Your task to perform on an android device: Add "logitech g903" to the cart on bestbuy, then select checkout. Image 0: 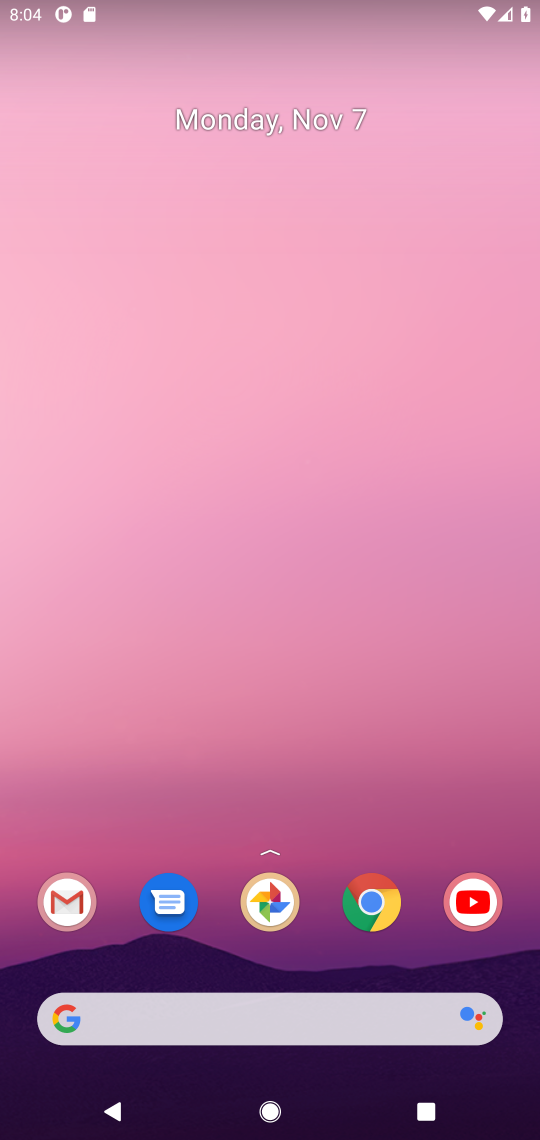
Step 0: click (372, 899)
Your task to perform on an android device: Add "logitech g903" to the cart on bestbuy, then select checkout. Image 1: 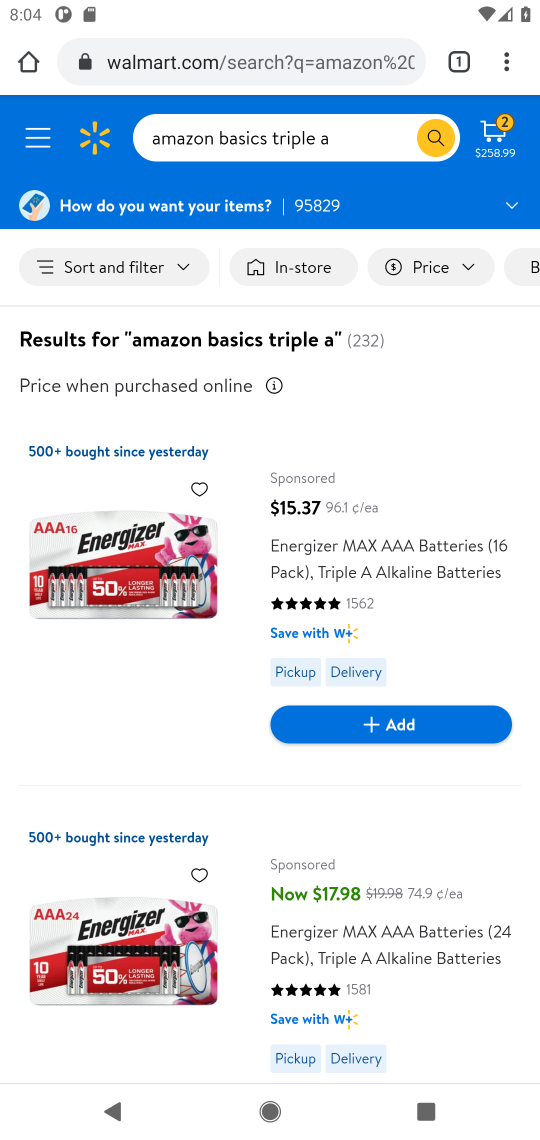
Step 1: click (263, 63)
Your task to perform on an android device: Add "logitech g903" to the cart on bestbuy, then select checkout. Image 2: 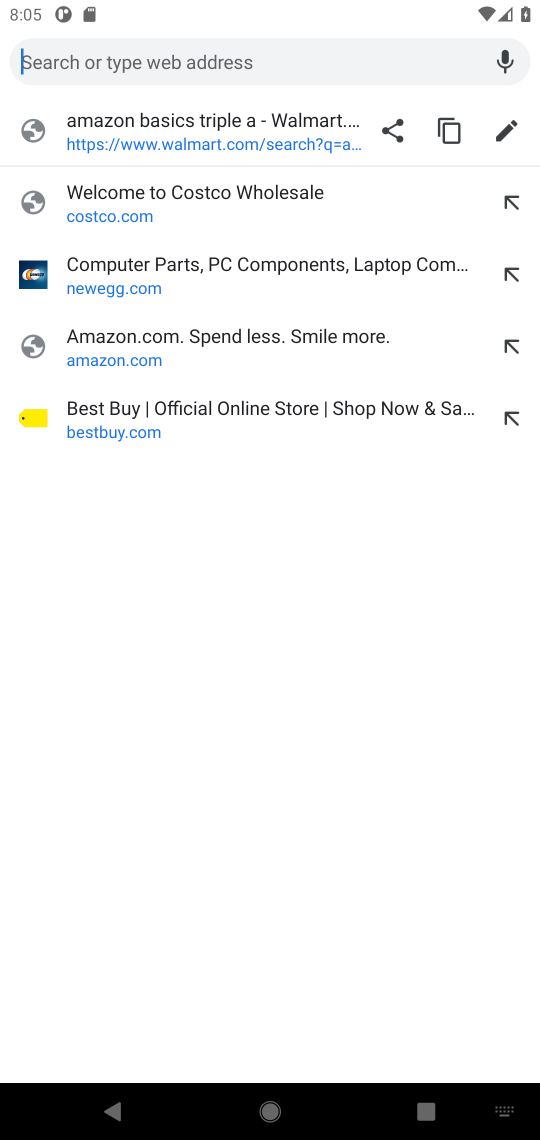
Step 2: click (102, 420)
Your task to perform on an android device: Add "logitech g903" to the cart on bestbuy, then select checkout. Image 3: 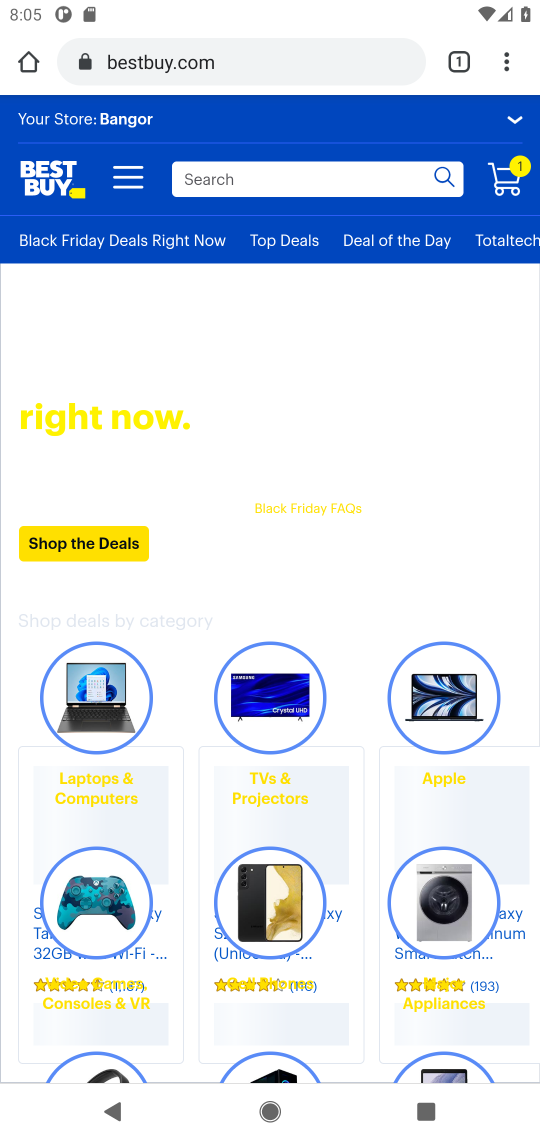
Step 3: click (270, 176)
Your task to perform on an android device: Add "logitech g903" to the cart on bestbuy, then select checkout. Image 4: 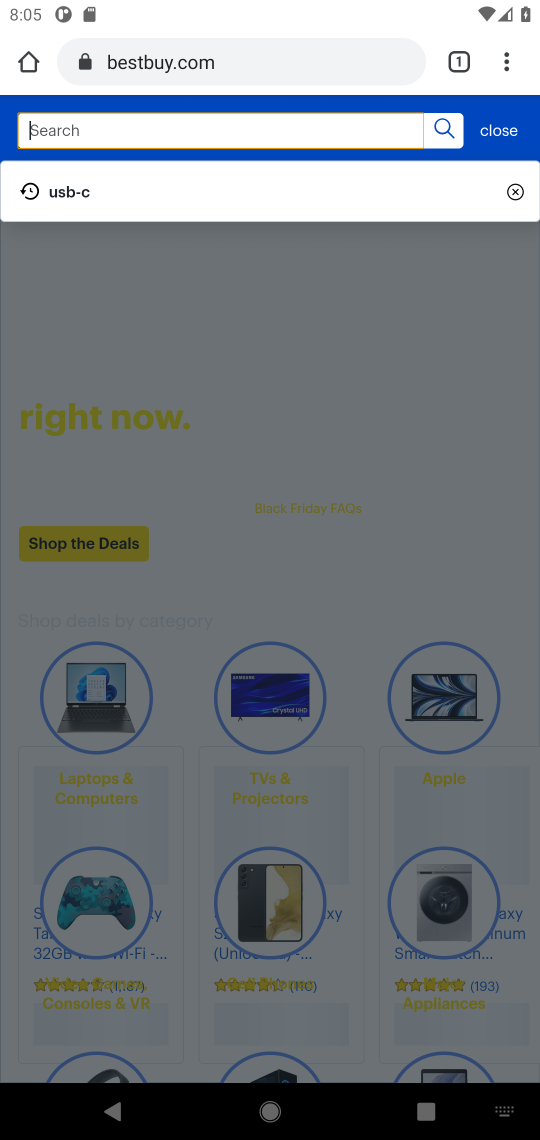
Step 4: type "logitech g903"
Your task to perform on an android device: Add "logitech g903" to the cart on bestbuy, then select checkout. Image 5: 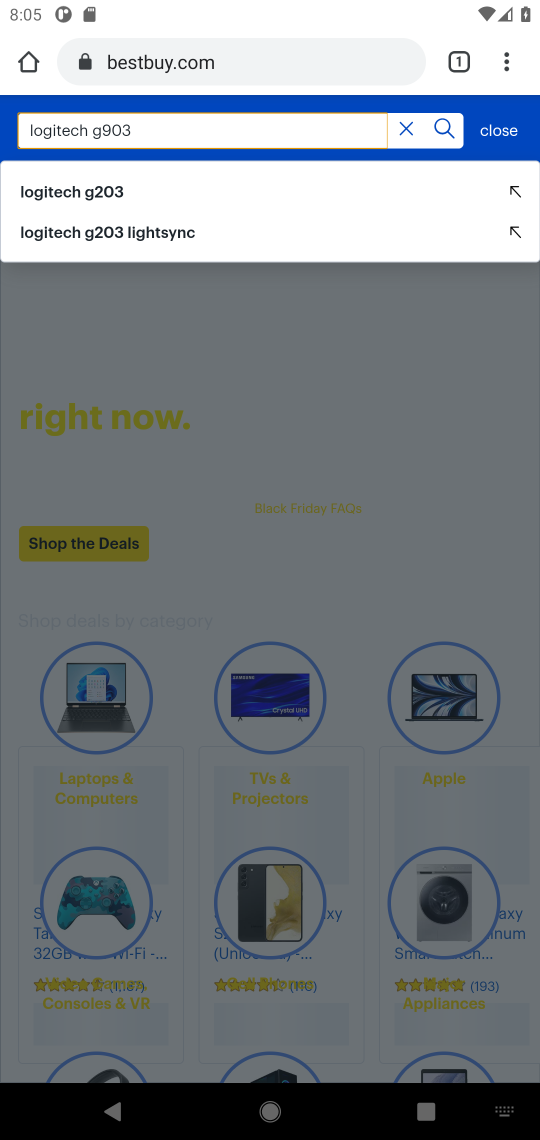
Step 5: click (439, 125)
Your task to perform on an android device: Add "logitech g903" to the cart on bestbuy, then select checkout. Image 6: 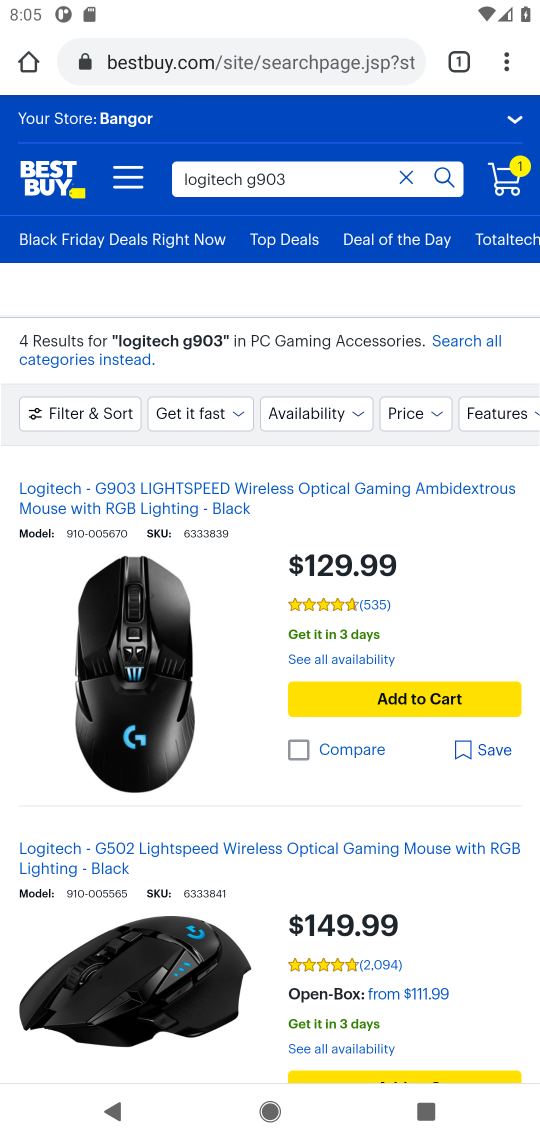
Step 6: click (362, 648)
Your task to perform on an android device: Add "logitech g903" to the cart on bestbuy, then select checkout. Image 7: 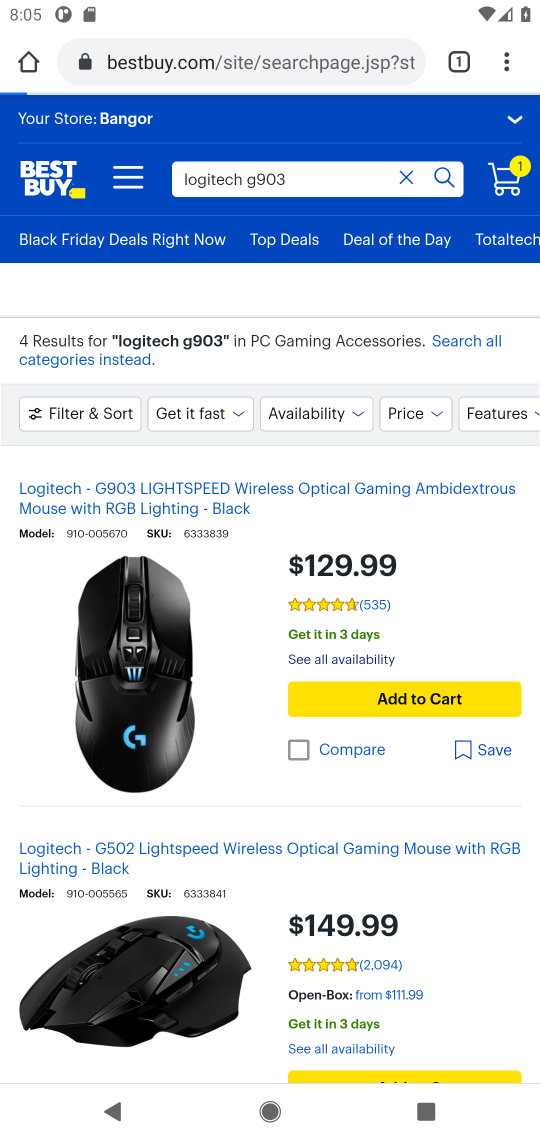
Step 7: click (357, 697)
Your task to perform on an android device: Add "logitech g903" to the cart on bestbuy, then select checkout. Image 8: 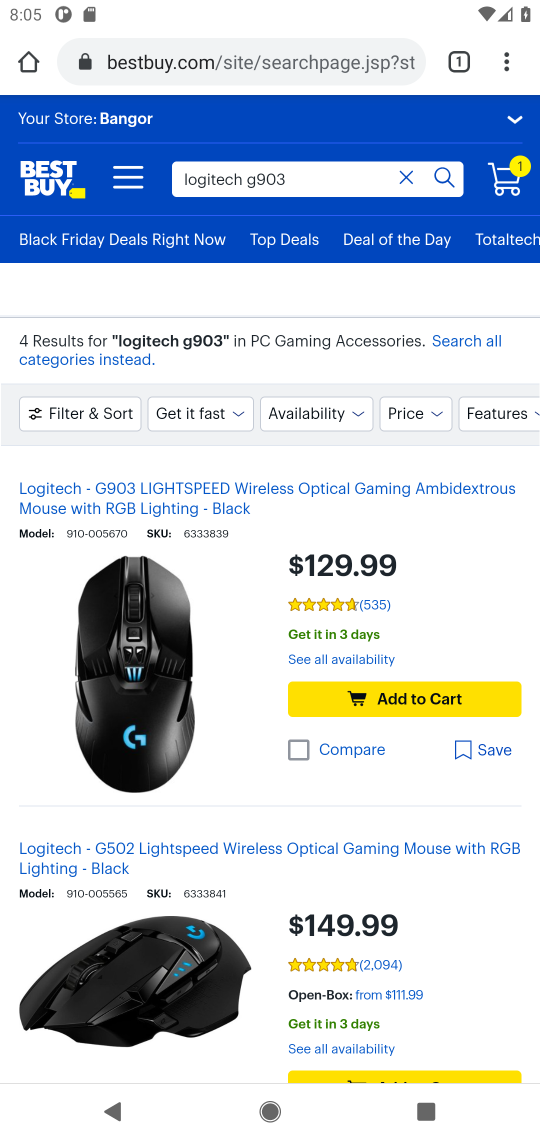
Step 8: click (357, 697)
Your task to perform on an android device: Add "logitech g903" to the cart on bestbuy, then select checkout. Image 9: 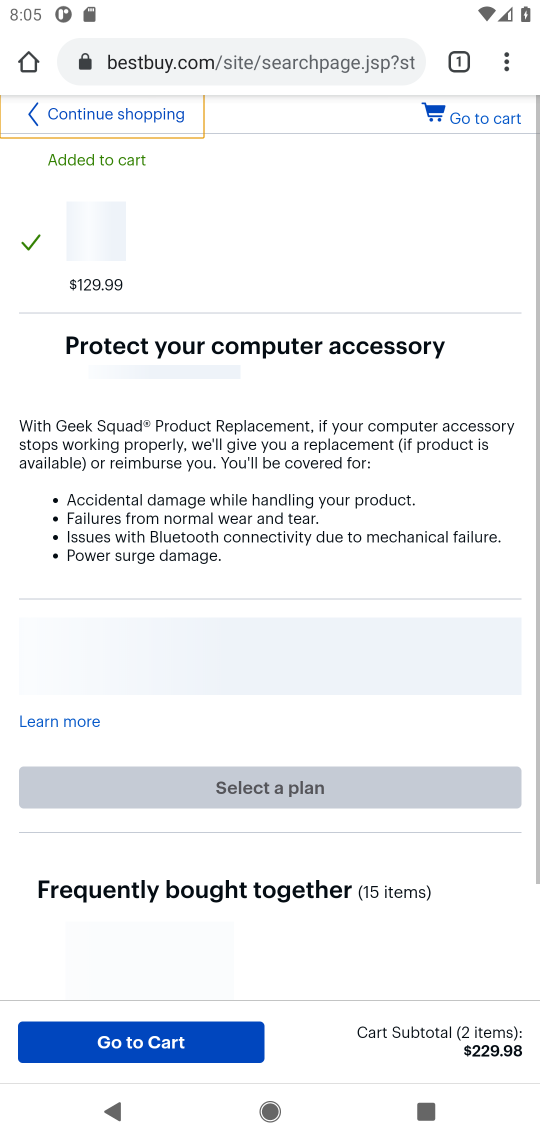
Step 9: click (484, 120)
Your task to perform on an android device: Add "logitech g903" to the cart on bestbuy, then select checkout. Image 10: 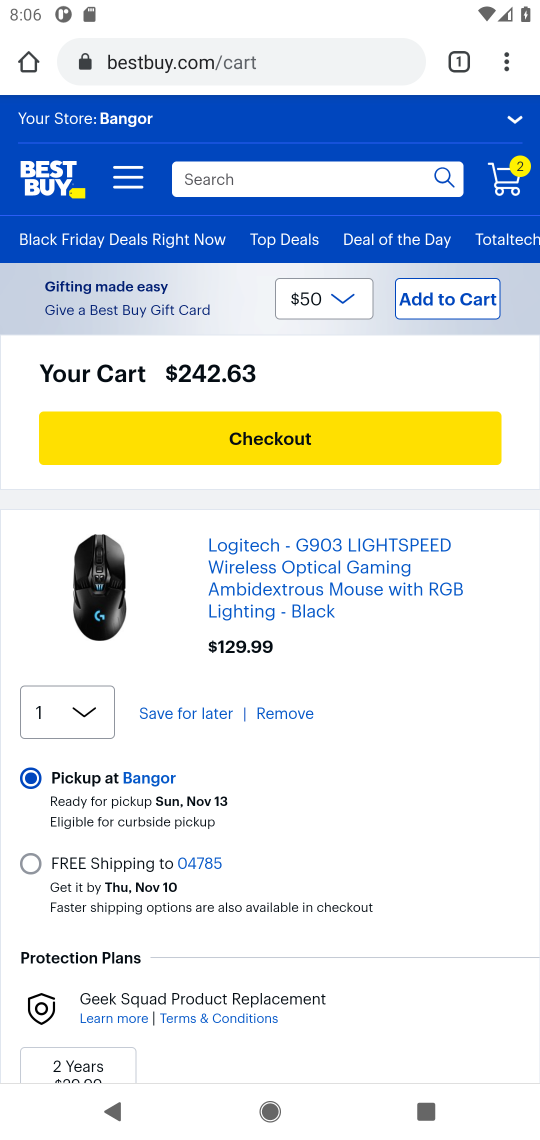
Step 10: click (246, 440)
Your task to perform on an android device: Add "logitech g903" to the cart on bestbuy, then select checkout. Image 11: 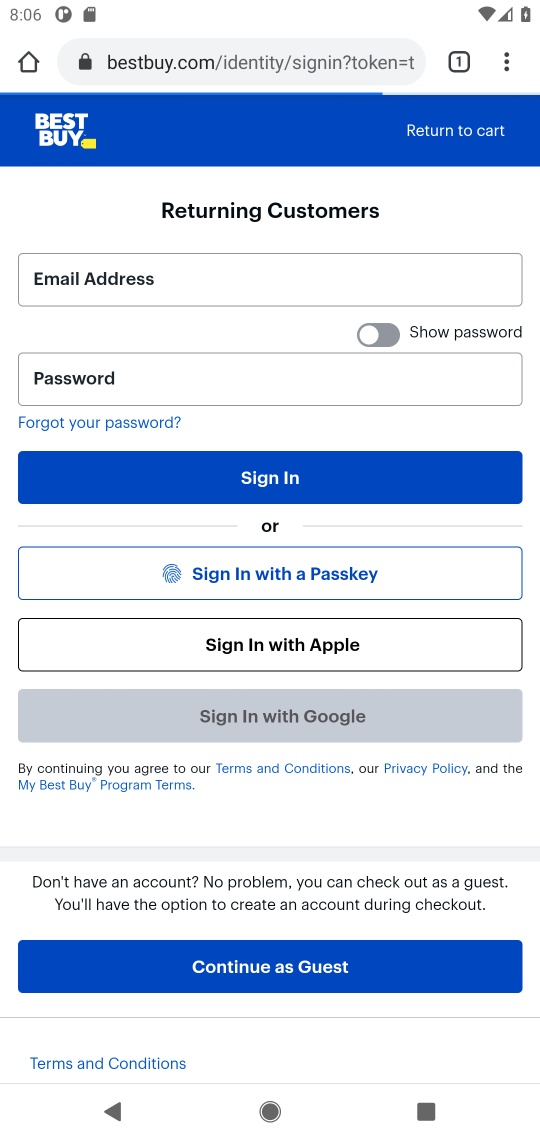
Step 11: task complete